Your task to perform on an android device: open app "McDonald's" Image 0: 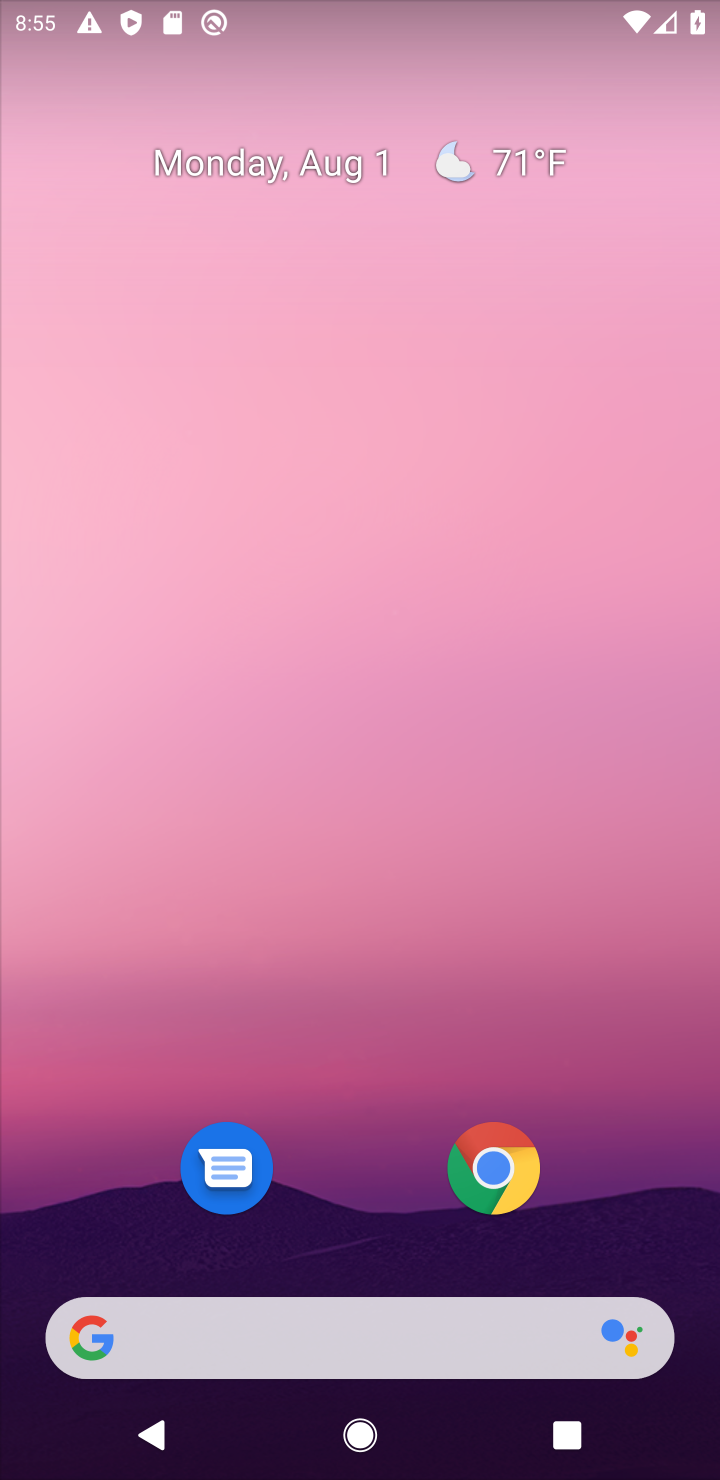
Step 0: drag from (373, 1239) to (403, 190)
Your task to perform on an android device: open app "McDonald's" Image 1: 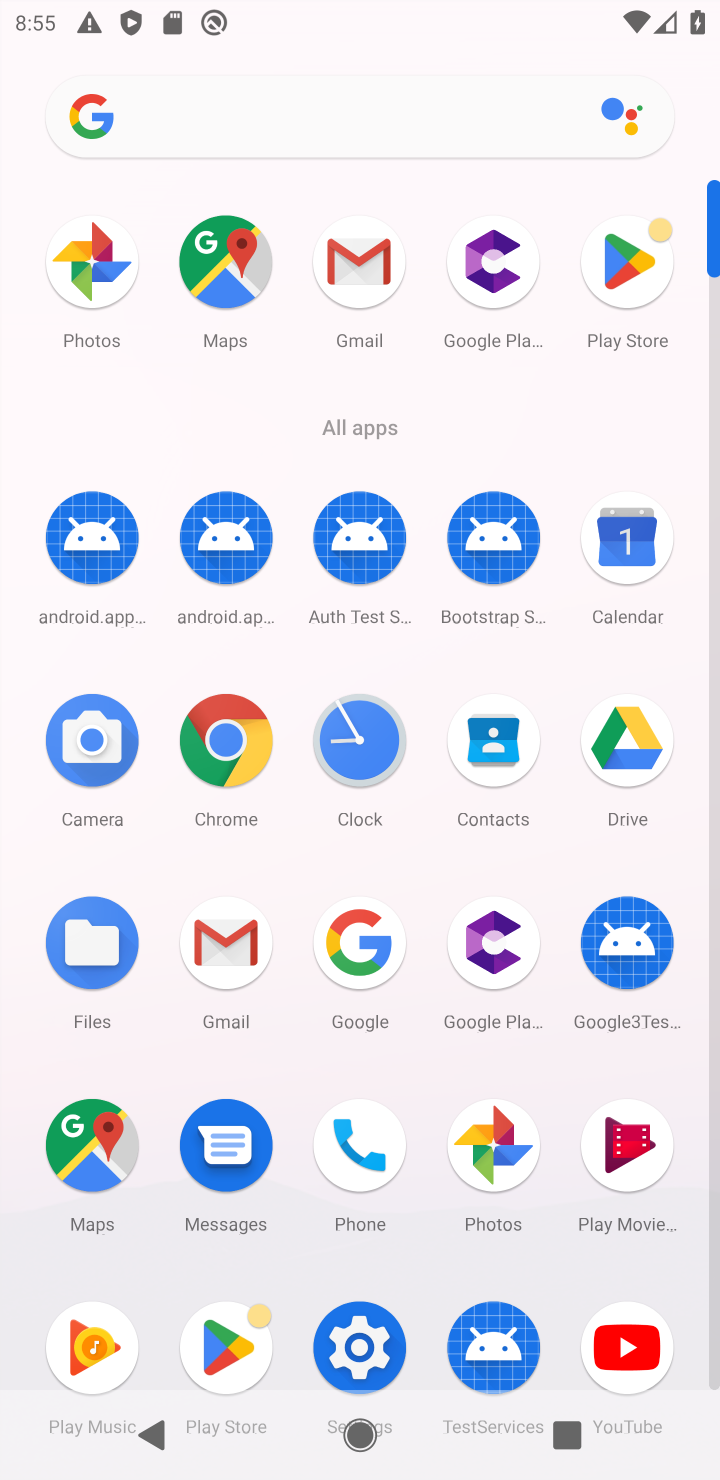
Step 1: click (236, 1341)
Your task to perform on an android device: open app "McDonald's" Image 2: 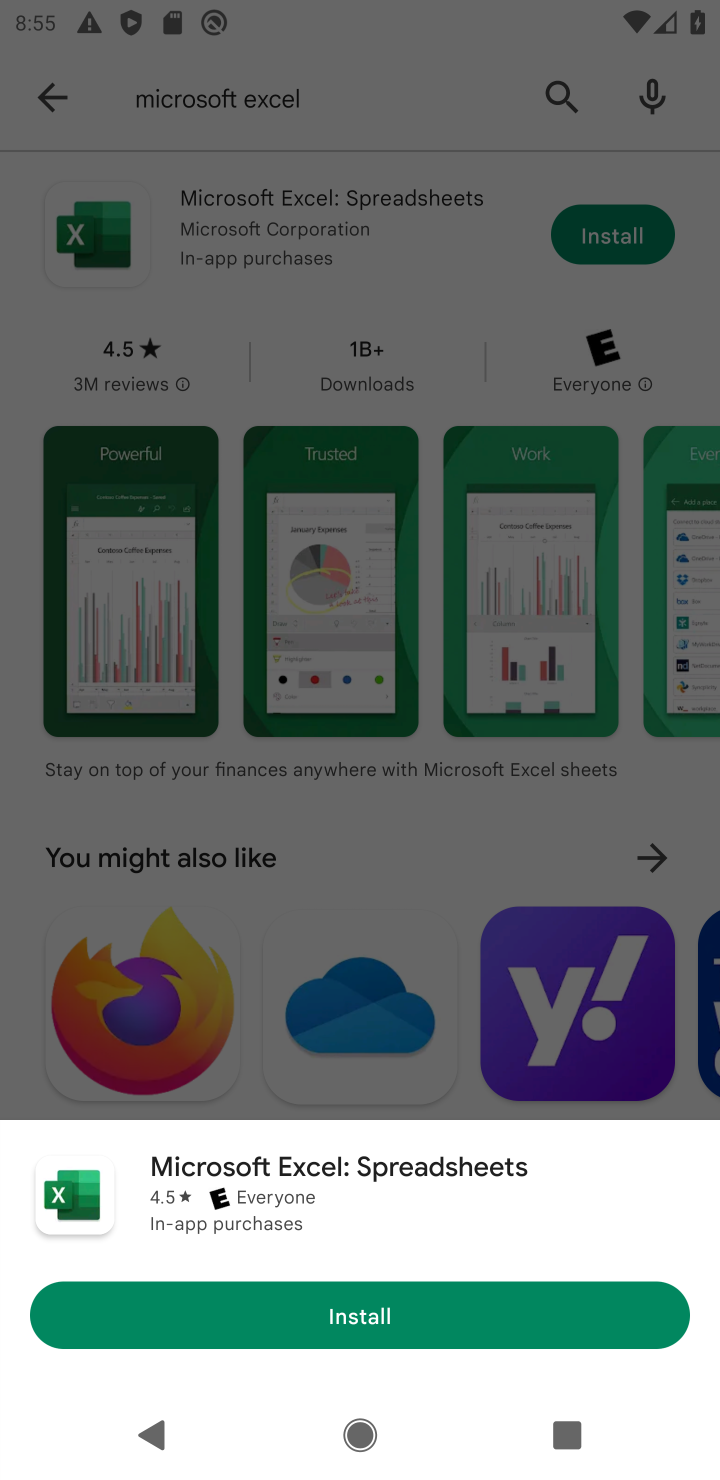
Step 2: click (270, 914)
Your task to perform on an android device: open app "McDonald's" Image 3: 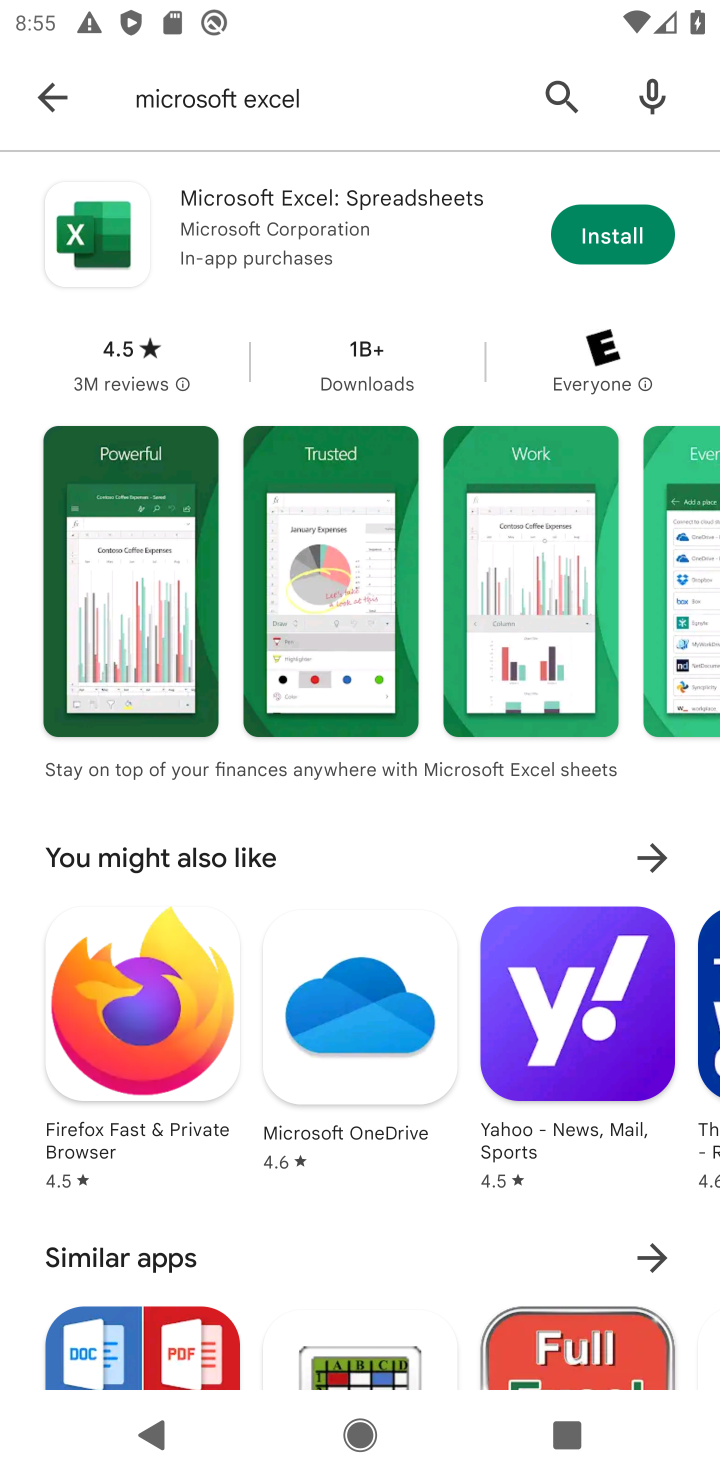
Step 3: click (63, 120)
Your task to perform on an android device: open app "McDonald's" Image 4: 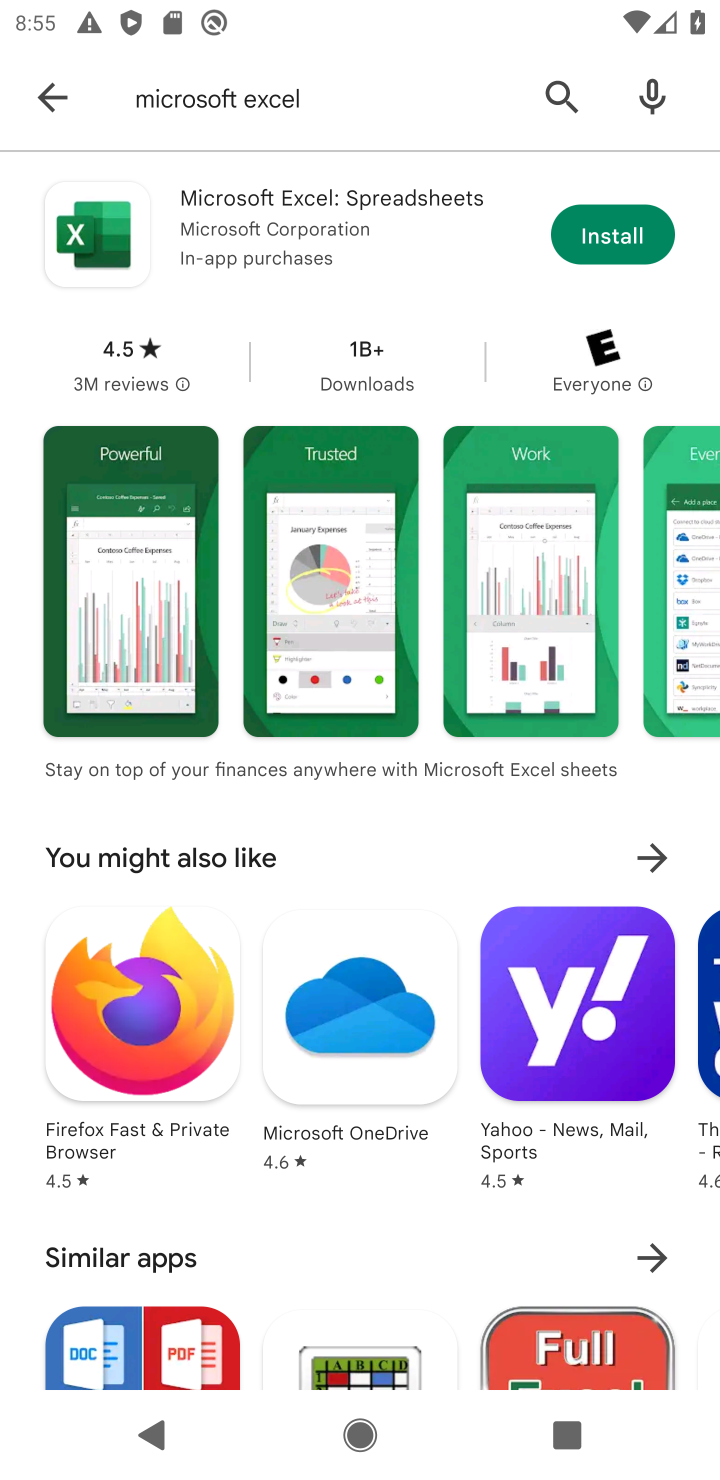
Step 4: click (55, 103)
Your task to perform on an android device: open app "McDonald's" Image 5: 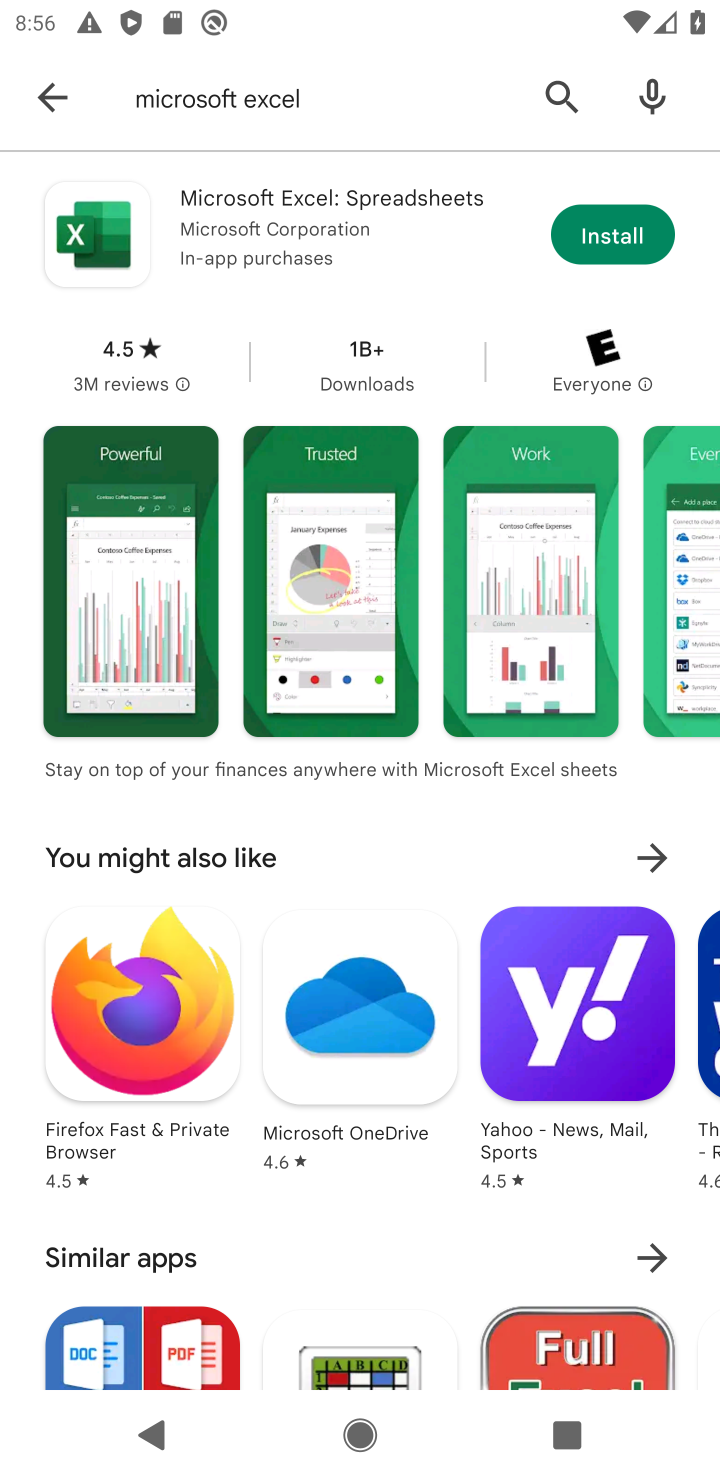
Step 5: click (64, 85)
Your task to perform on an android device: open app "McDonald's" Image 6: 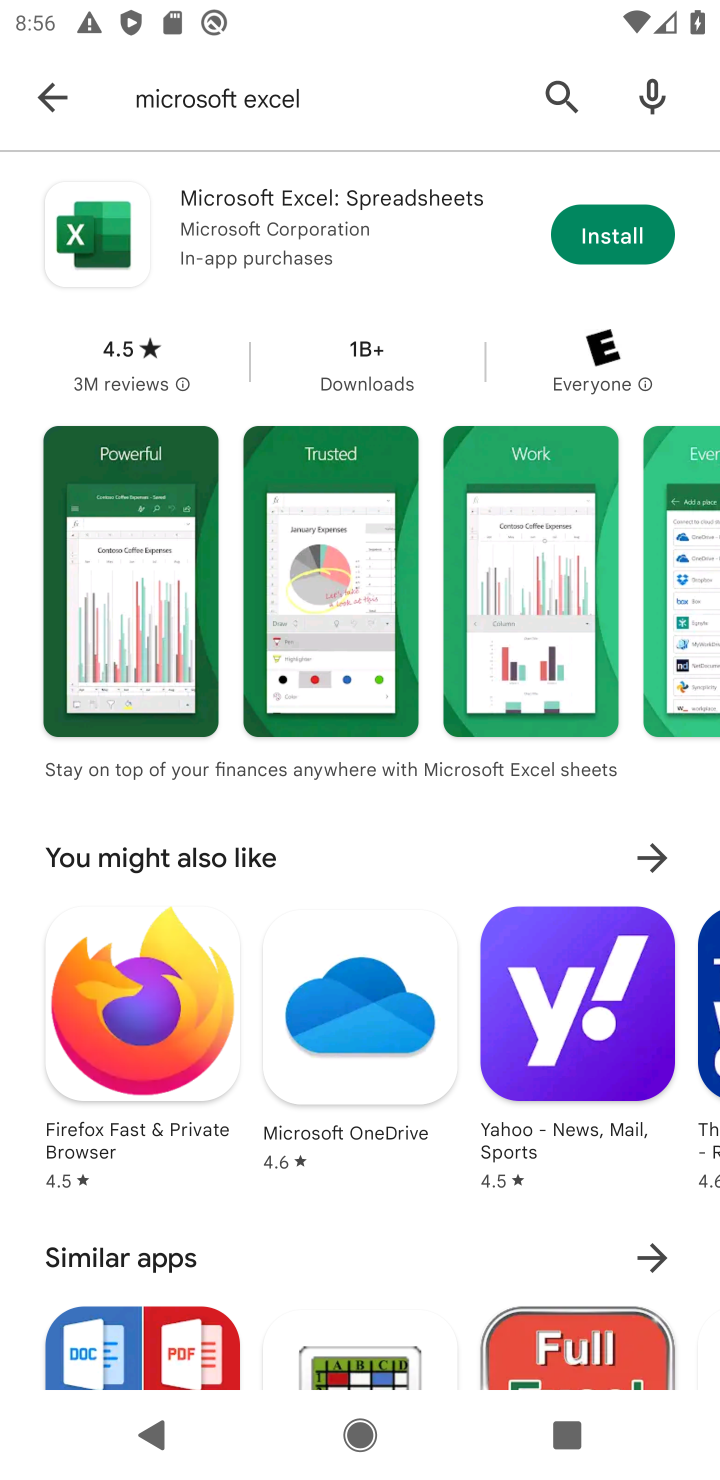
Step 6: click (49, 95)
Your task to perform on an android device: open app "McDonald's" Image 7: 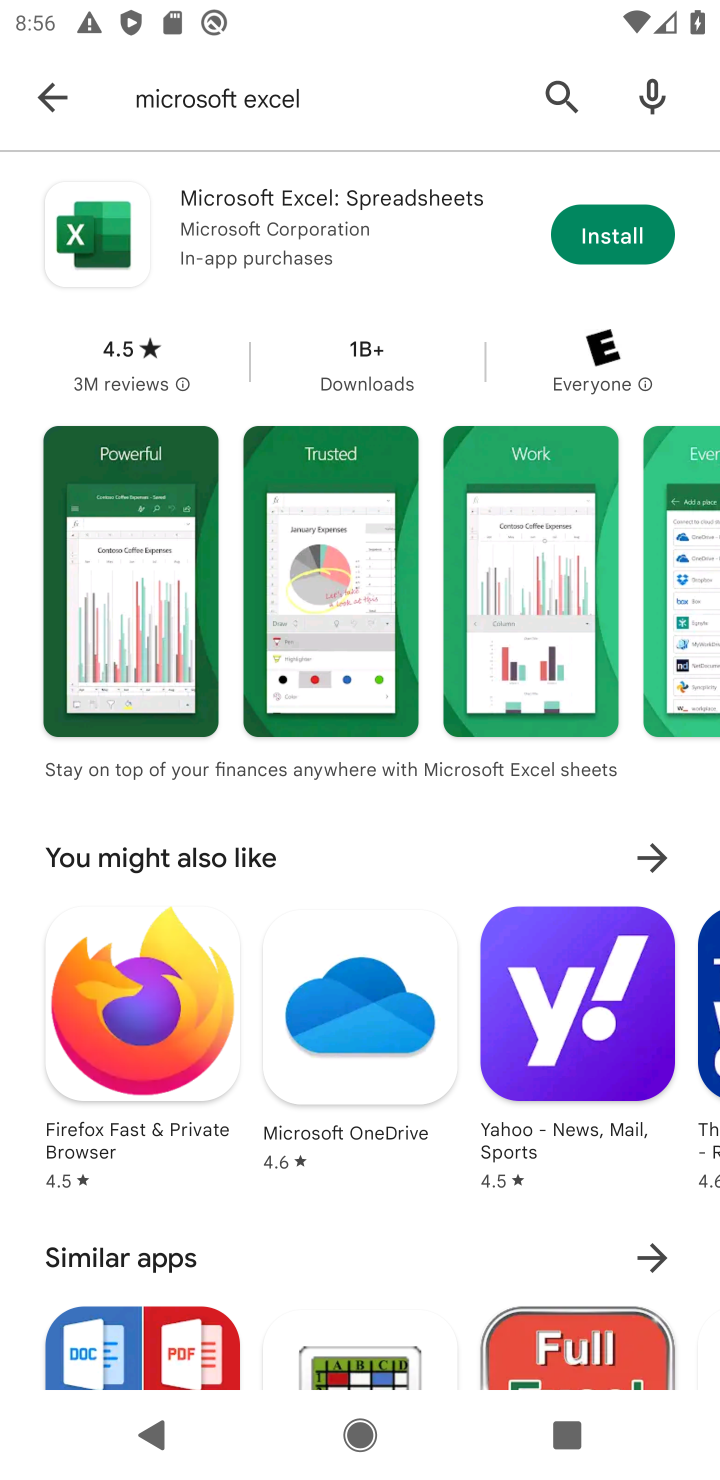
Step 7: click (549, 88)
Your task to perform on an android device: open app "McDonald's" Image 8: 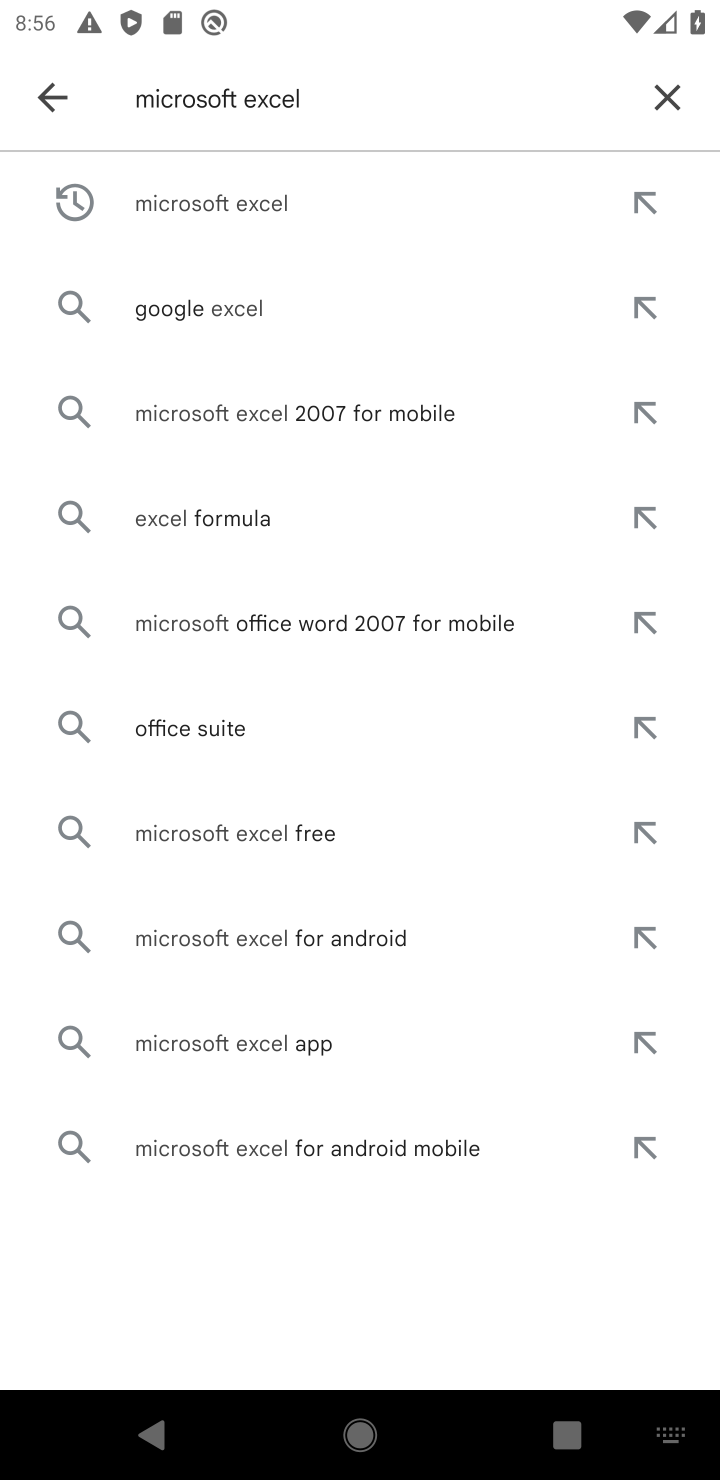
Step 8: click (666, 93)
Your task to perform on an android device: open app "McDonald's" Image 9: 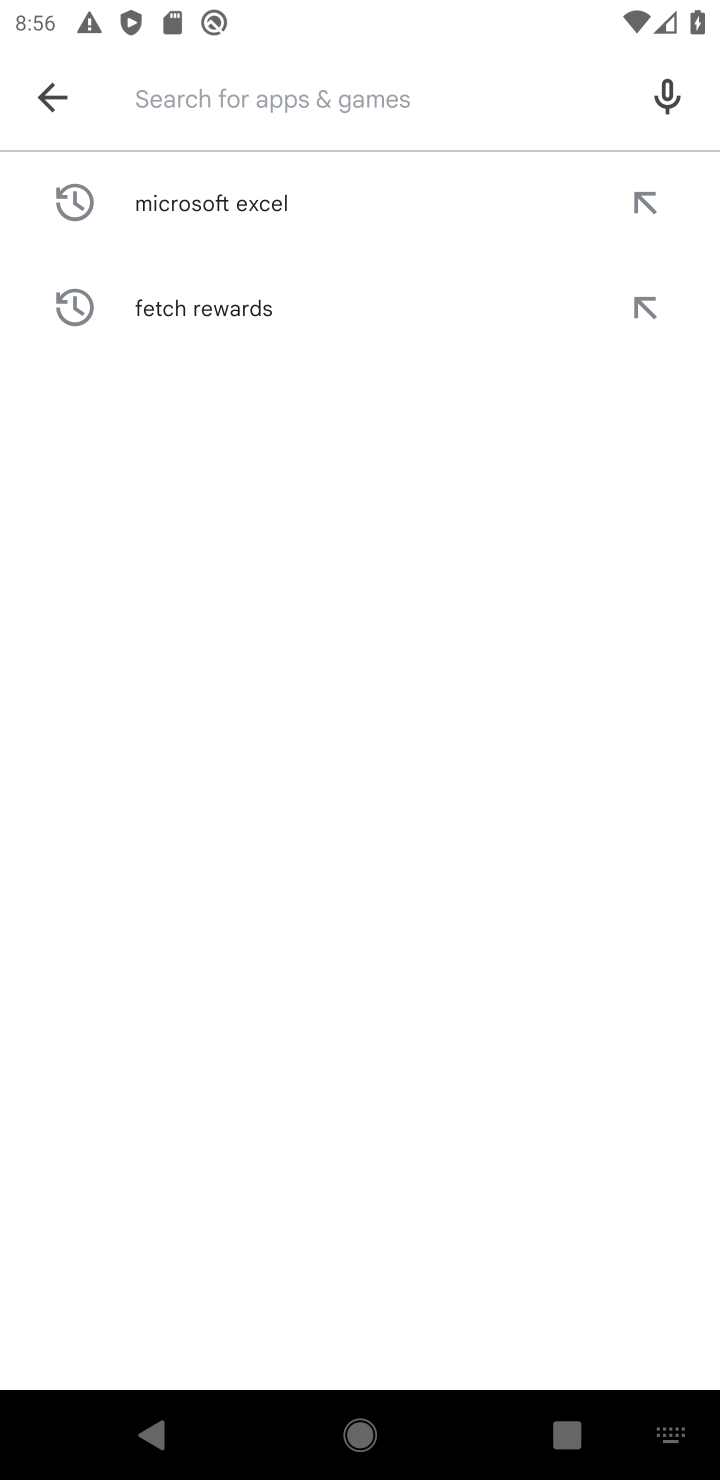
Step 9: type "McDonald's"
Your task to perform on an android device: open app "McDonald's" Image 10: 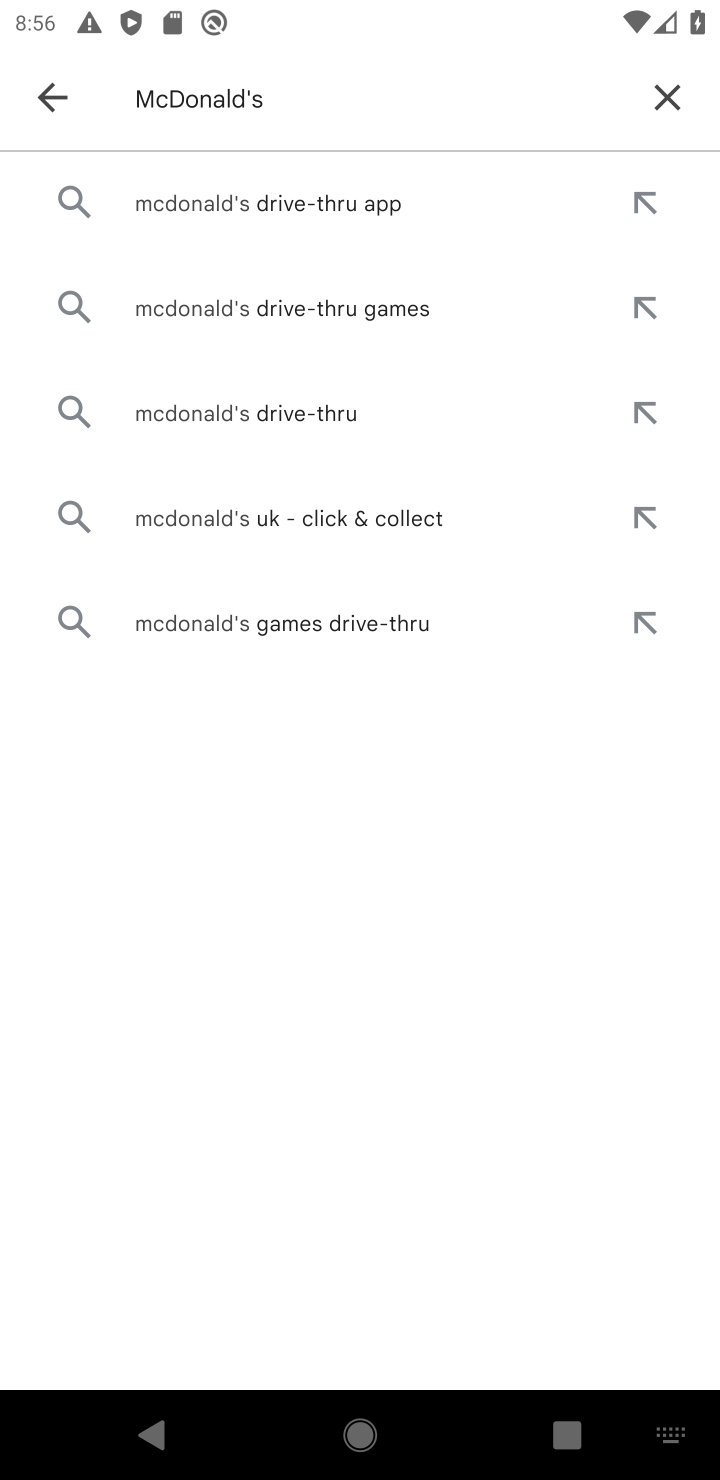
Step 10: click (328, 206)
Your task to perform on an android device: open app "McDonald's" Image 11: 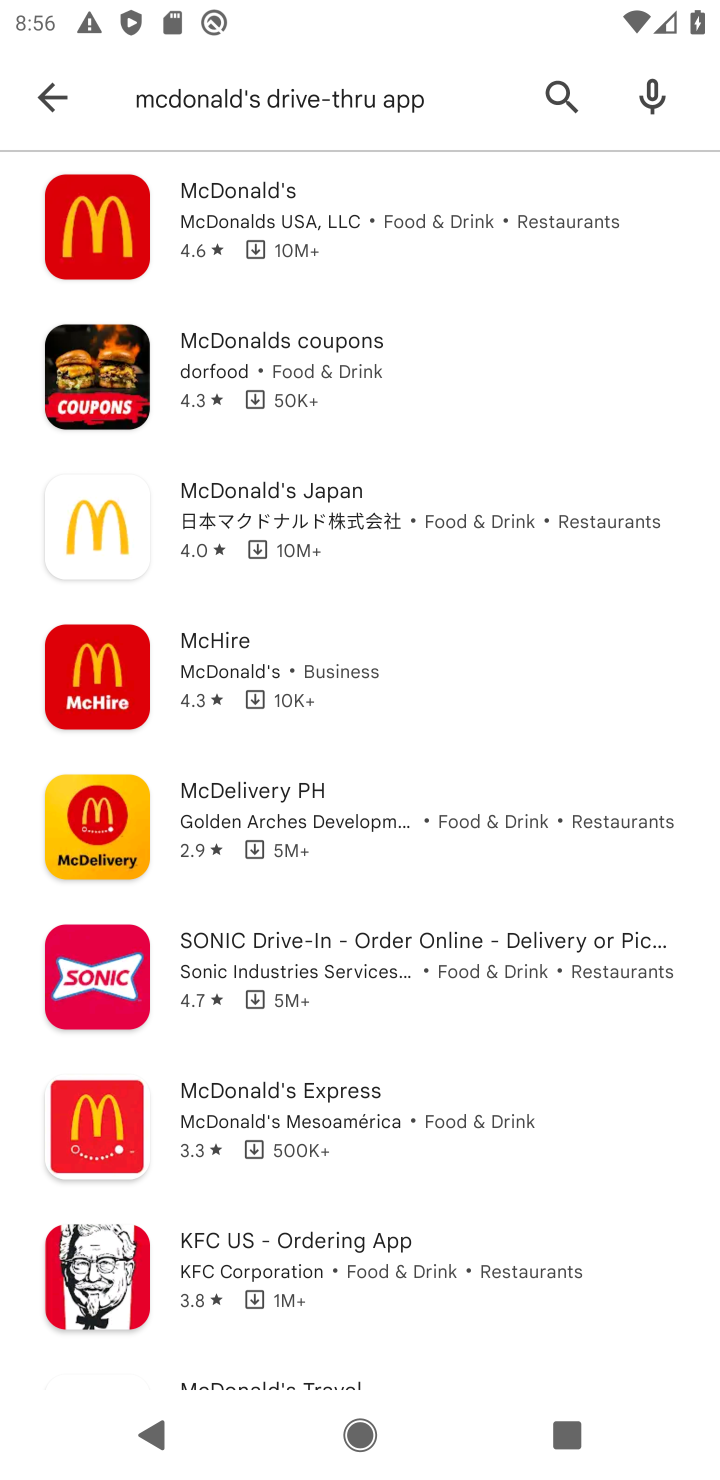
Step 11: click (328, 206)
Your task to perform on an android device: open app "McDonald's" Image 12: 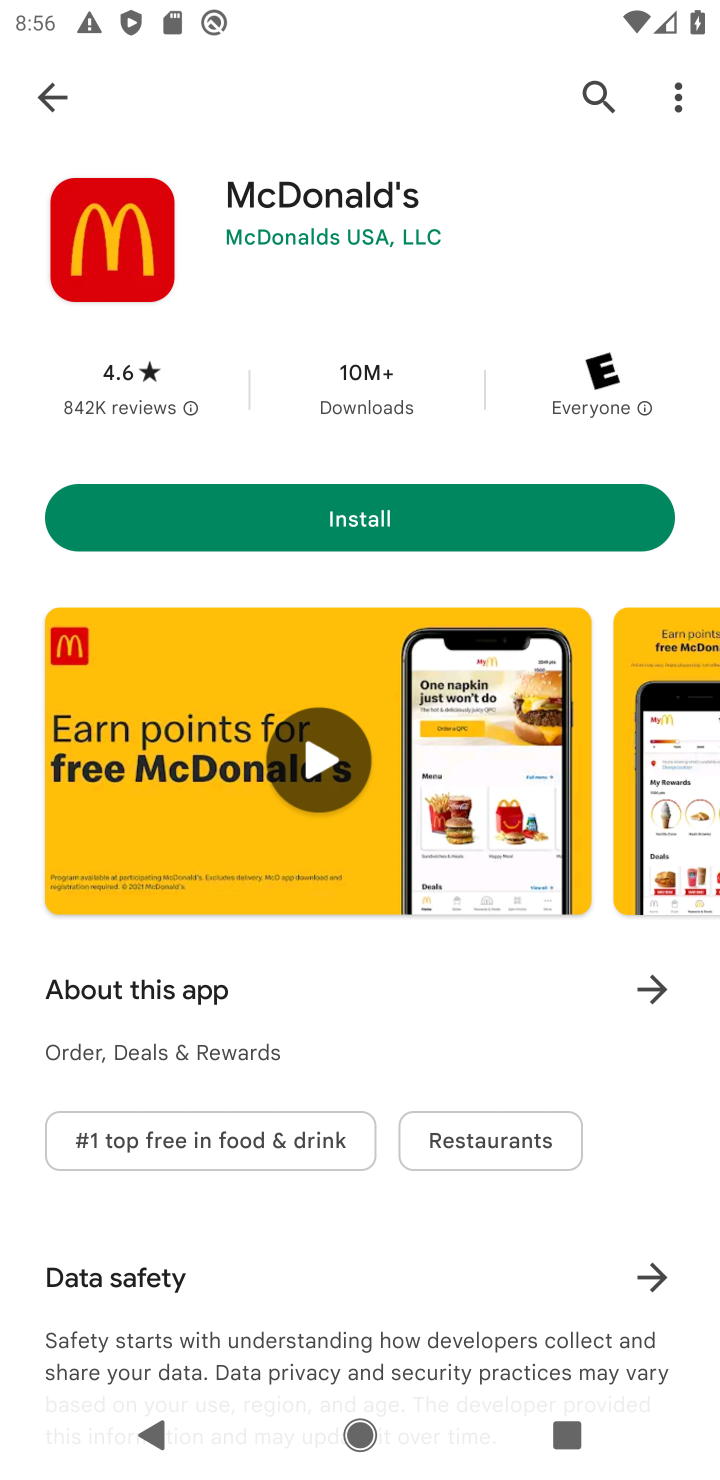
Step 12: task complete